Your task to perform on an android device: open a new tab in the chrome app Image 0: 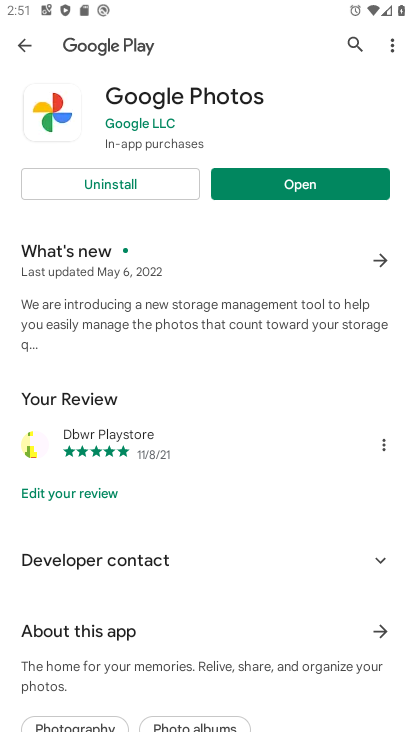
Step 0: press home button
Your task to perform on an android device: open a new tab in the chrome app Image 1: 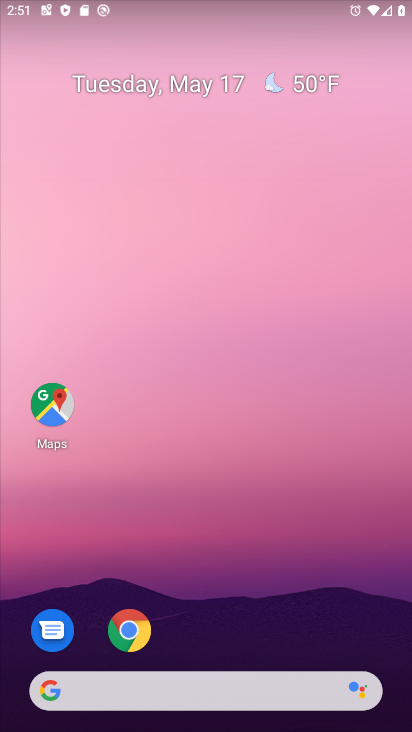
Step 1: click (117, 625)
Your task to perform on an android device: open a new tab in the chrome app Image 2: 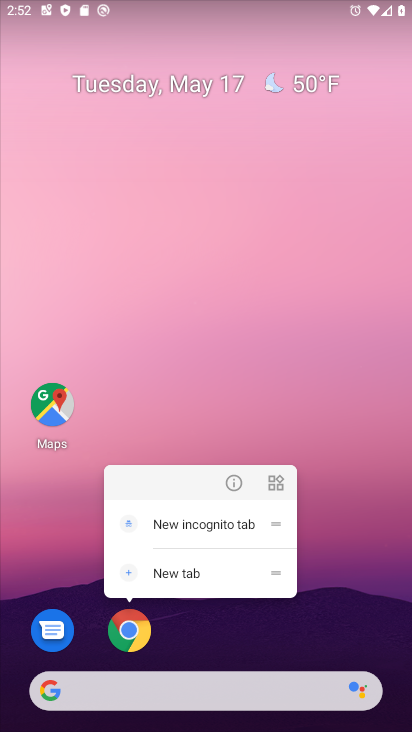
Step 2: click (126, 633)
Your task to perform on an android device: open a new tab in the chrome app Image 3: 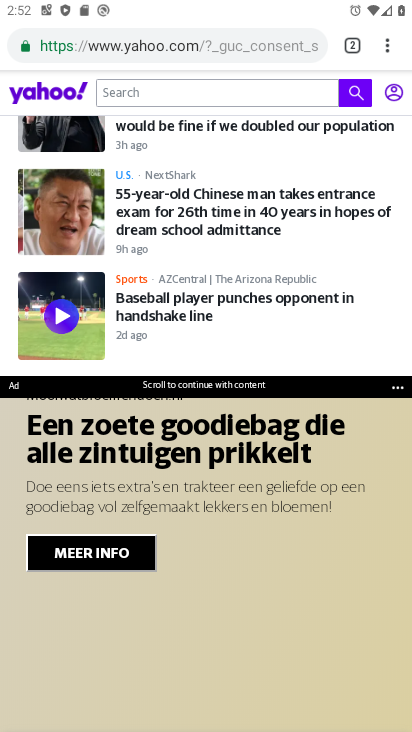
Step 3: click (389, 49)
Your task to perform on an android device: open a new tab in the chrome app Image 4: 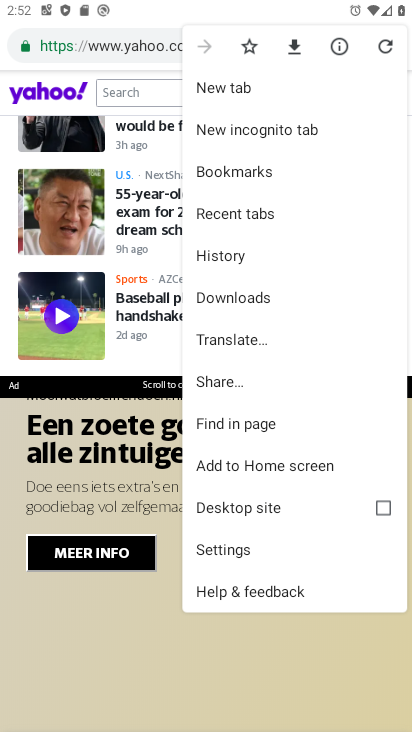
Step 4: click (219, 94)
Your task to perform on an android device: open a new tab in the chrome app Image 5: 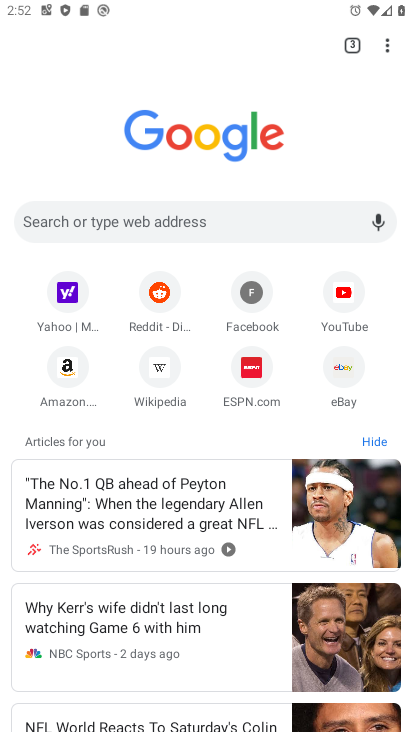
Step 5: task complete